Your task to perform on an android device: check data usage Image 0: 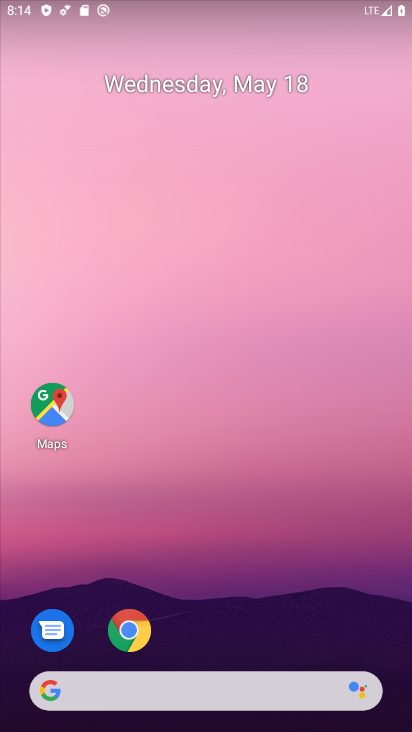
Step 0: press home button
Your task to perform on an android device: check data usage Image 1: 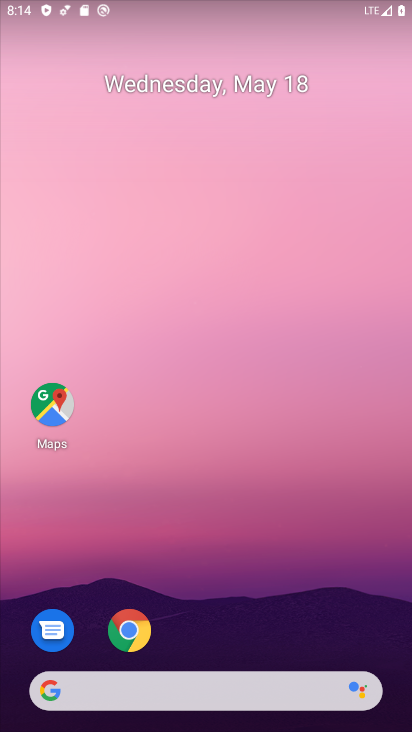
Step 1: drag from (184, 682) to (290, 215)
Your task to perform on an android device: check data usage Image 2: 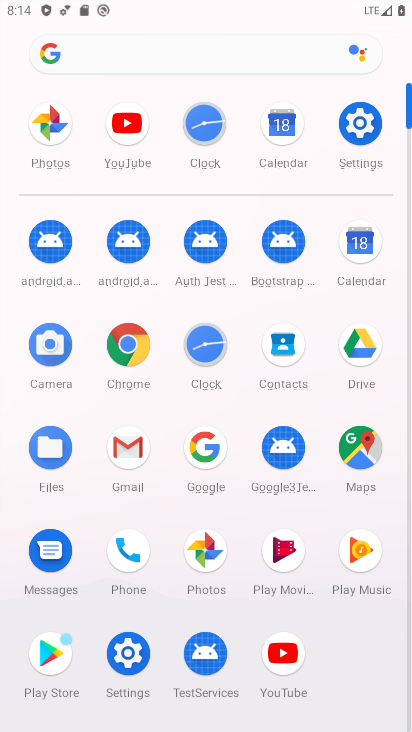
Step 2: click (353, 124)
Your task to perform on an android device: check data usage Image 3: 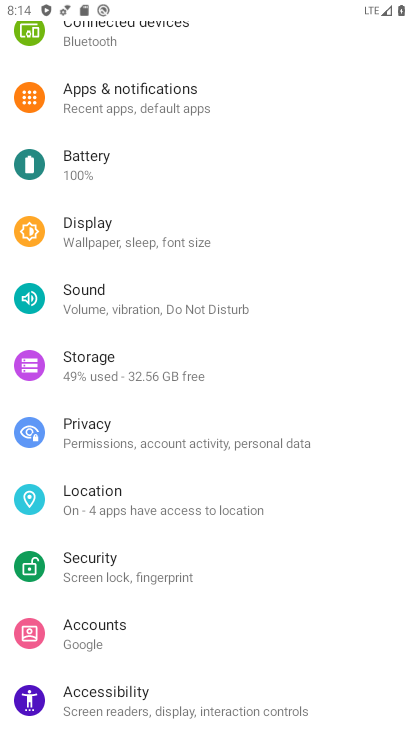
Step 3: drag from (308, 108) to (213, 655)
Your task to perform on an android device: check data usage Image 4: 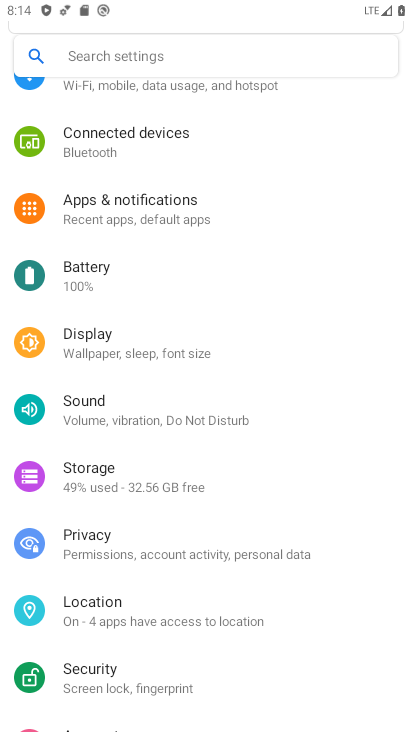
Step 4: drag from (266, 167) to (156, 608)
Your task to perform on an android device: check data usage Image 5: 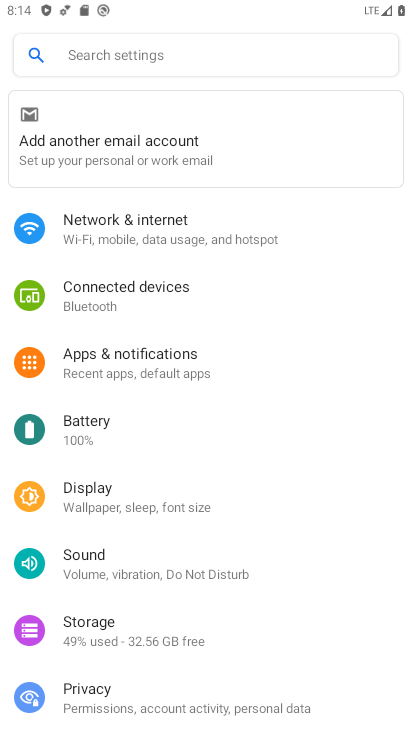
Step 5: click (156, 227)
Your task to perform on an android device: check data usage Image 6: 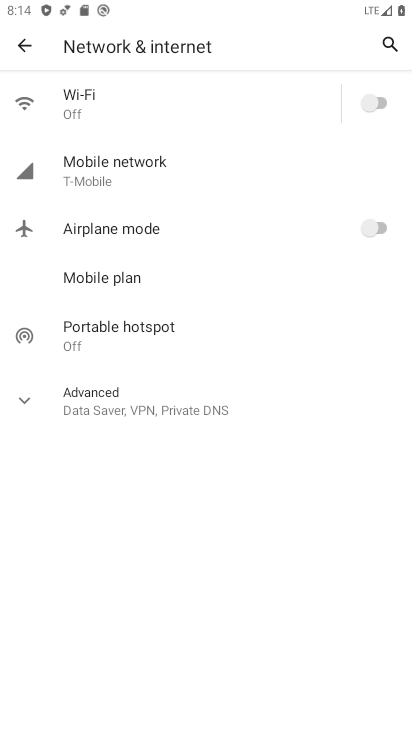
Step 6: click (103, 104)
Your task to perform on an android device: check data usage Image 7: 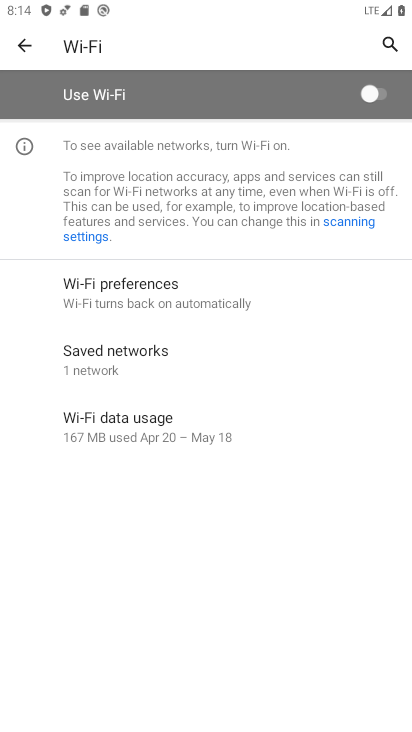
Step 7: click (123, 417)
Your task to perform on an android device: check data usage Image 8: 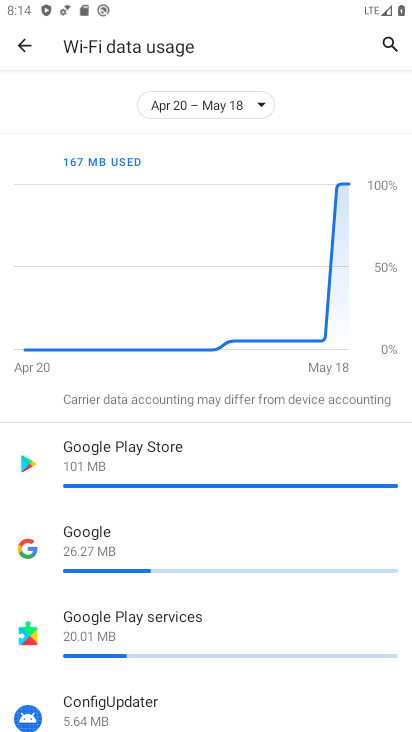
Step 8: task complete